Your task to perform on an android device: What's on my calendar today? Image 0: 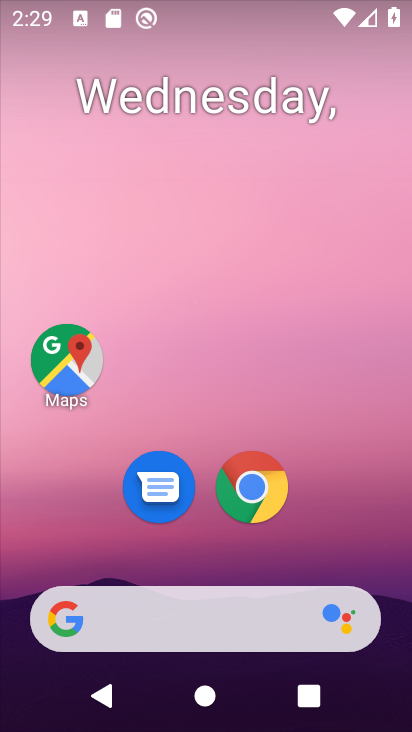
Step 0: click (186, 271)
Your task to perform on an android device: What's on my calendar today? Image 1: 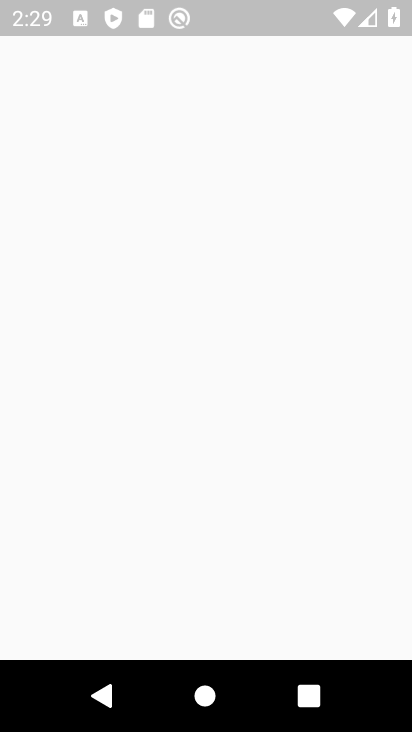
Step 1: drag from (242, 644) to (256, 247)
Your task to perform on an android device: What's on my calendar today? Image 2: 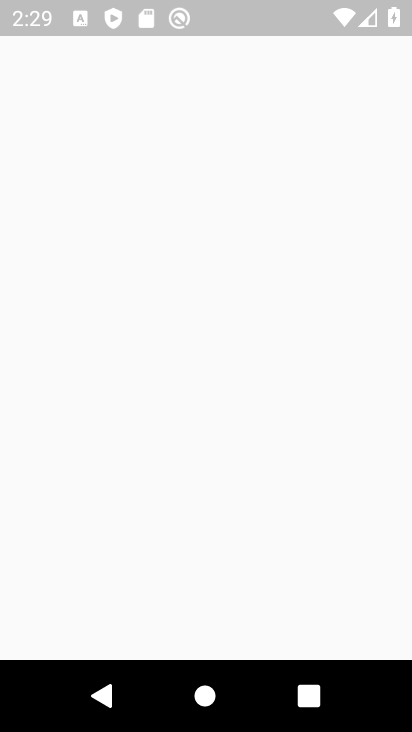
Step 2: press home button
Your task to perform on an android device: What's on my calendar today? Image 3: 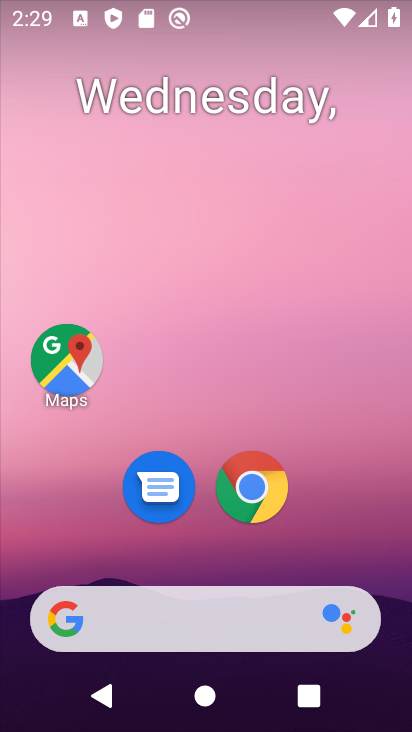
Step 3: drag from (171, 561) to (208, 275)
Your task to perform on an android device: What's on my calendar today? Image 4: 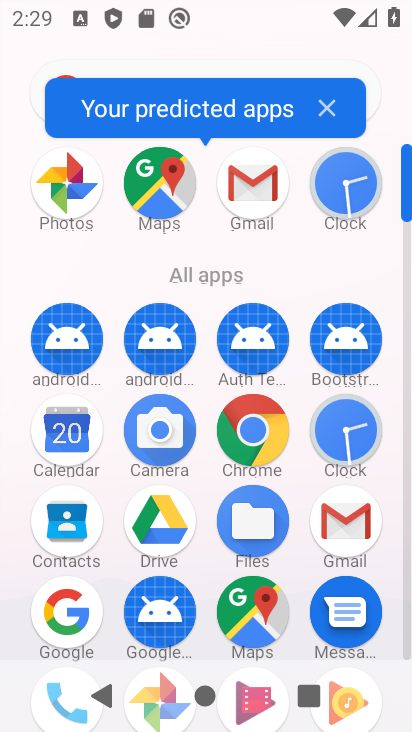
Step 4: click (69, 434)
Your task to perform on an android device: What's on my calendar today? Image 5: 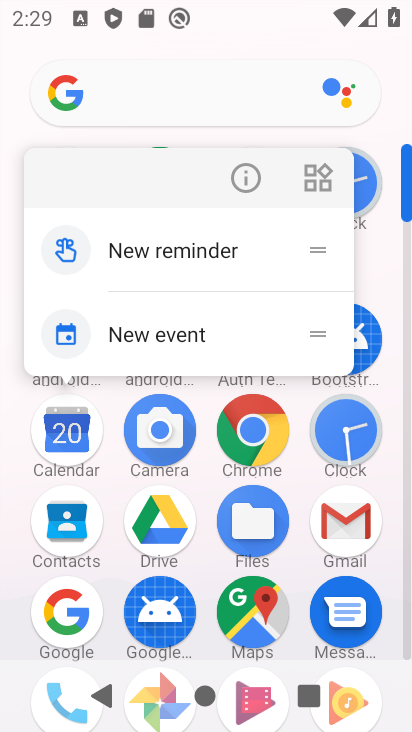
Step 5: click (69, 434)
Your task to perform on an android device: What's on my calendar today? Image 6: 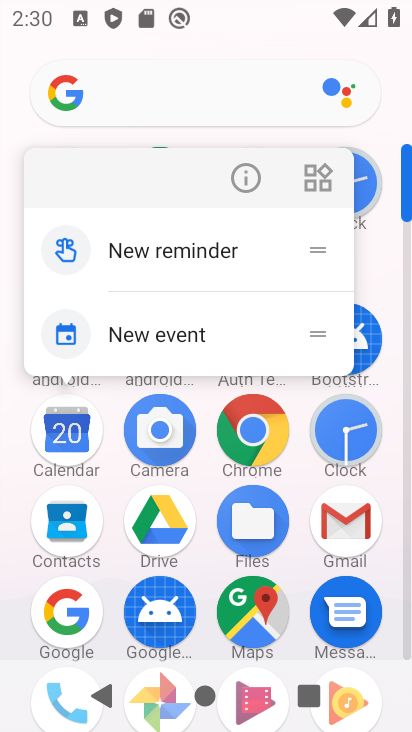
Step 6: click (65, 435)
Your task to perform on an android device: What's on my calendar today? Image 7: 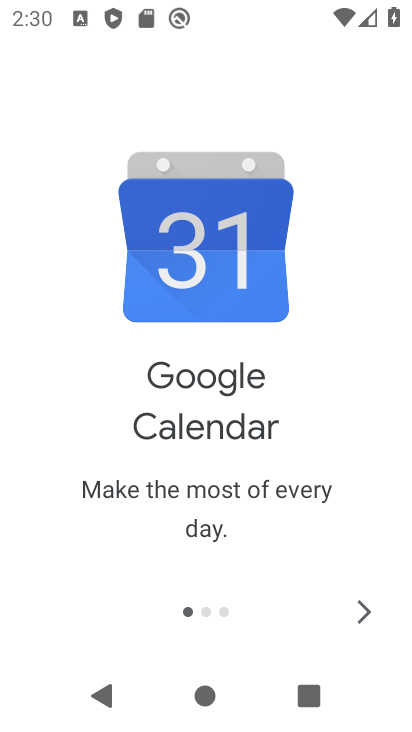
Step 7: click (368, 604)
Your task to perform on an android device: What's on my calendar today? Image 8: 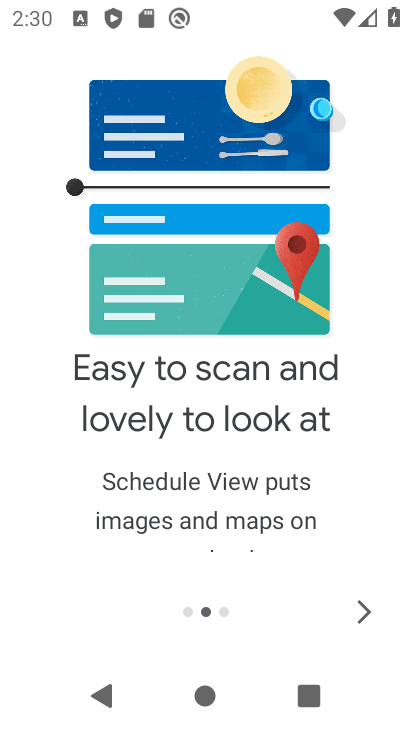
Step 8: click (368, 604)
Your task to perform on an android device: What's on my calendar today? Image 9: 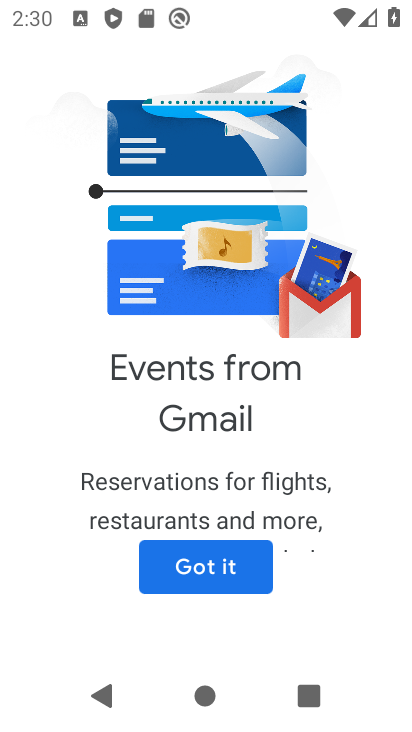
Step 9: click (195, 576)
Your task to perform on an android device: What's on my calendar today? Image 10: 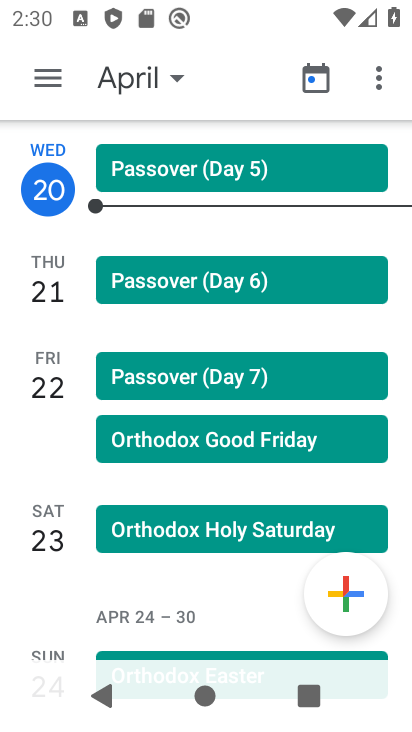
Step 10: click (142, 84)
Your task to perform on an android device: What's on my calendar today? Image 11: 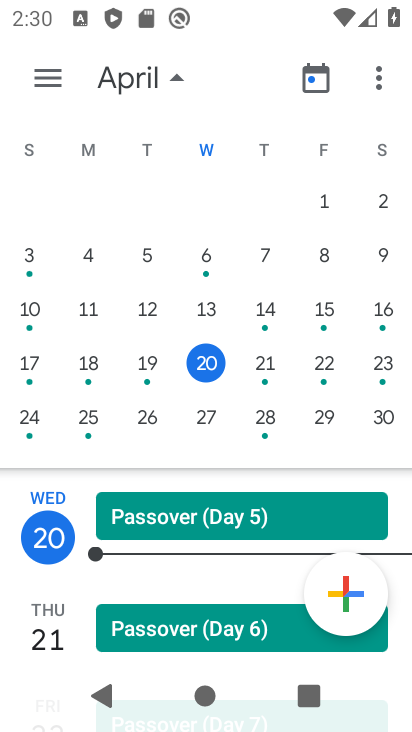
Step 11: click (139, 82)
Your task to perform on an android device: What's on my calendar today? Image 12: 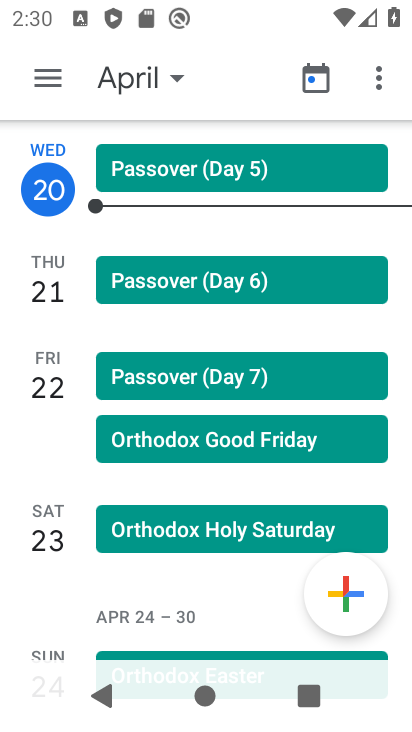
Step 12: task complete